Your task to perform on an android device: clear all cookies in the chrome app Image 0: 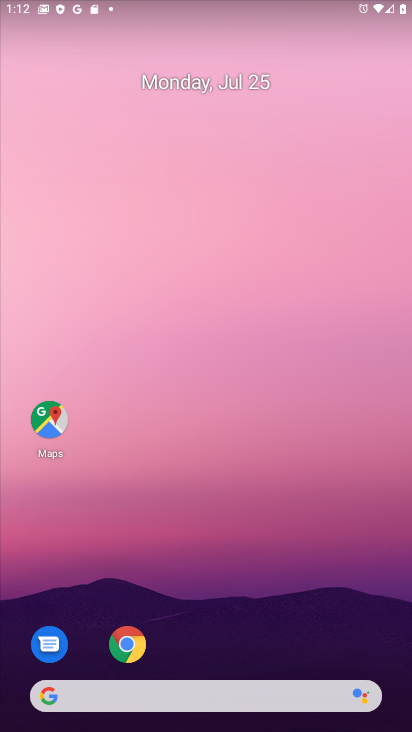
Step 0: click (129, 649)
Your task to perform on an android device: clear all cookies in the chrome app Image 1: 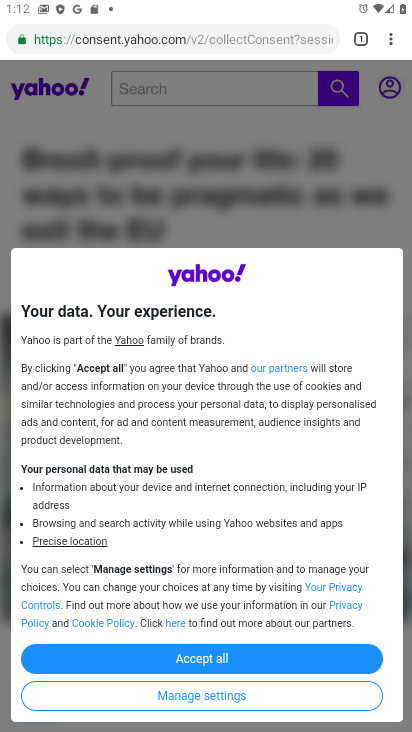
Step 1: click (387, 38)
Your task to perform on an android device: clear all cookies in the chrome app Image 2: 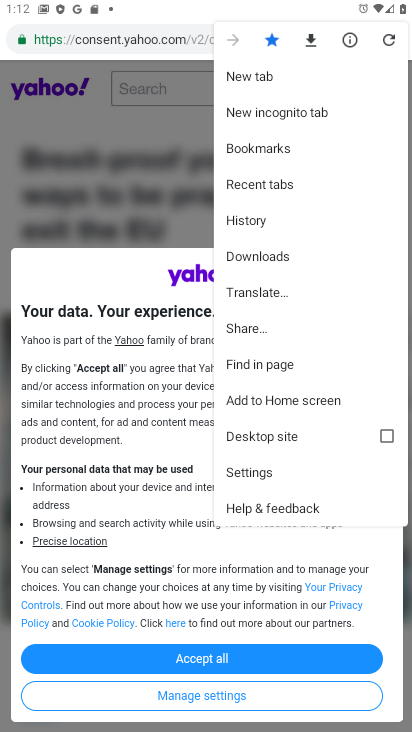
Step 2: click (251, 224)
Your task to perform on an android device: clear all cookies in the chrome app Image 3: 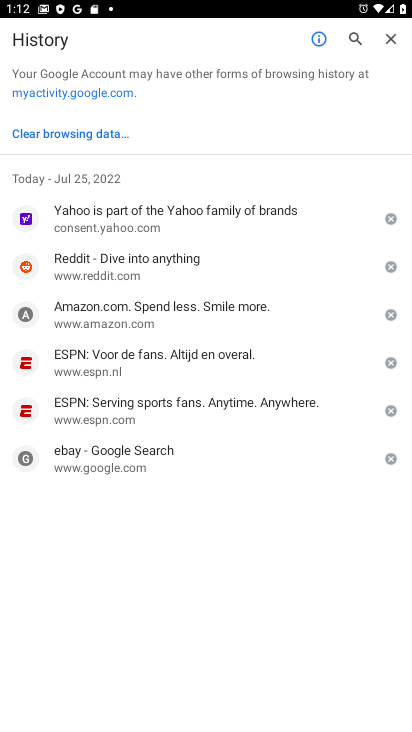
Step 3: click (58, 137)
Your task to perform on an android device: clear all cookies in the chrome app Image 4: 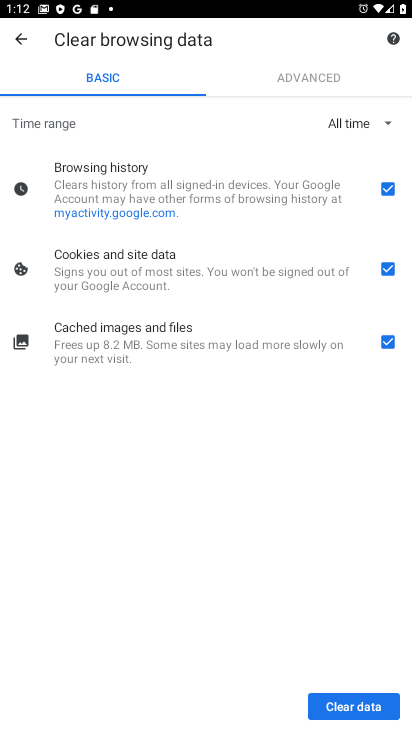
Step 4: click (390, 194)
Your task to perform on an android device: clear all cookies in the chrome app Image 5: 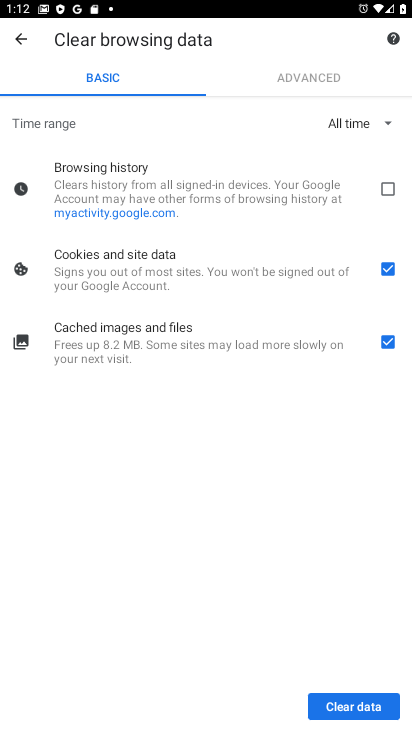
Step 5: click (386, 343)
Your task to perform on an android device: clear all cookies in the chrome app Image 6: 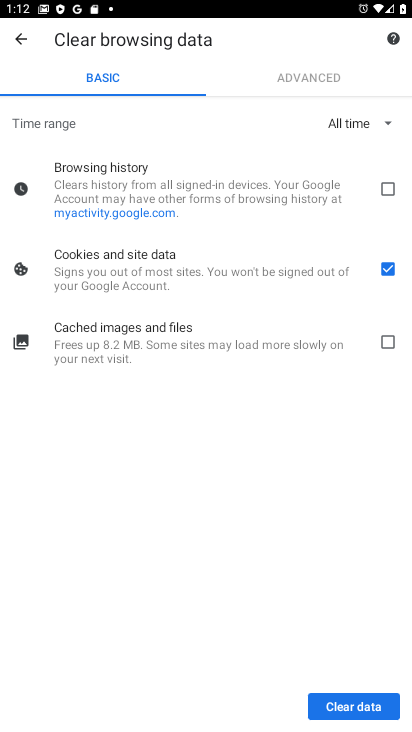
Step 6: click (369, 700)
Your task to perform on an android device: clear all cookies in the chrome app Image 7: 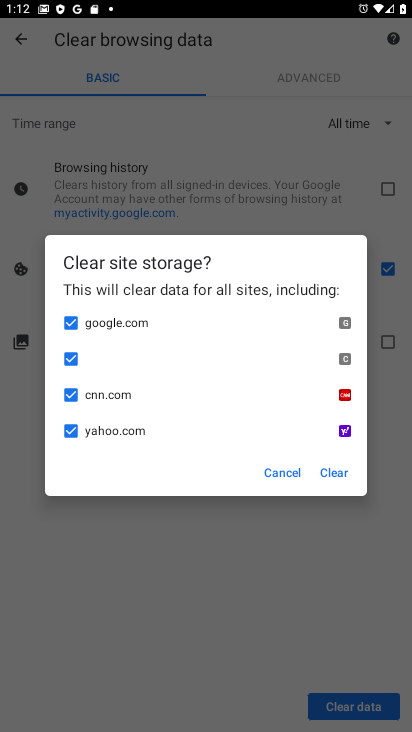
Step 7: click (332, 473)
Your task to perform on an android device: clear all cookies in the chrome app Image 8: 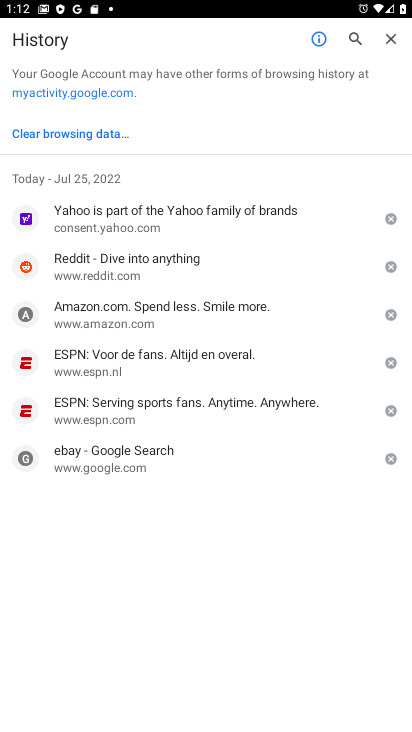
Step 8: task complete